Your task to perform on an android device: open app "Google Find My Device" (install if not already installed) Image 0: 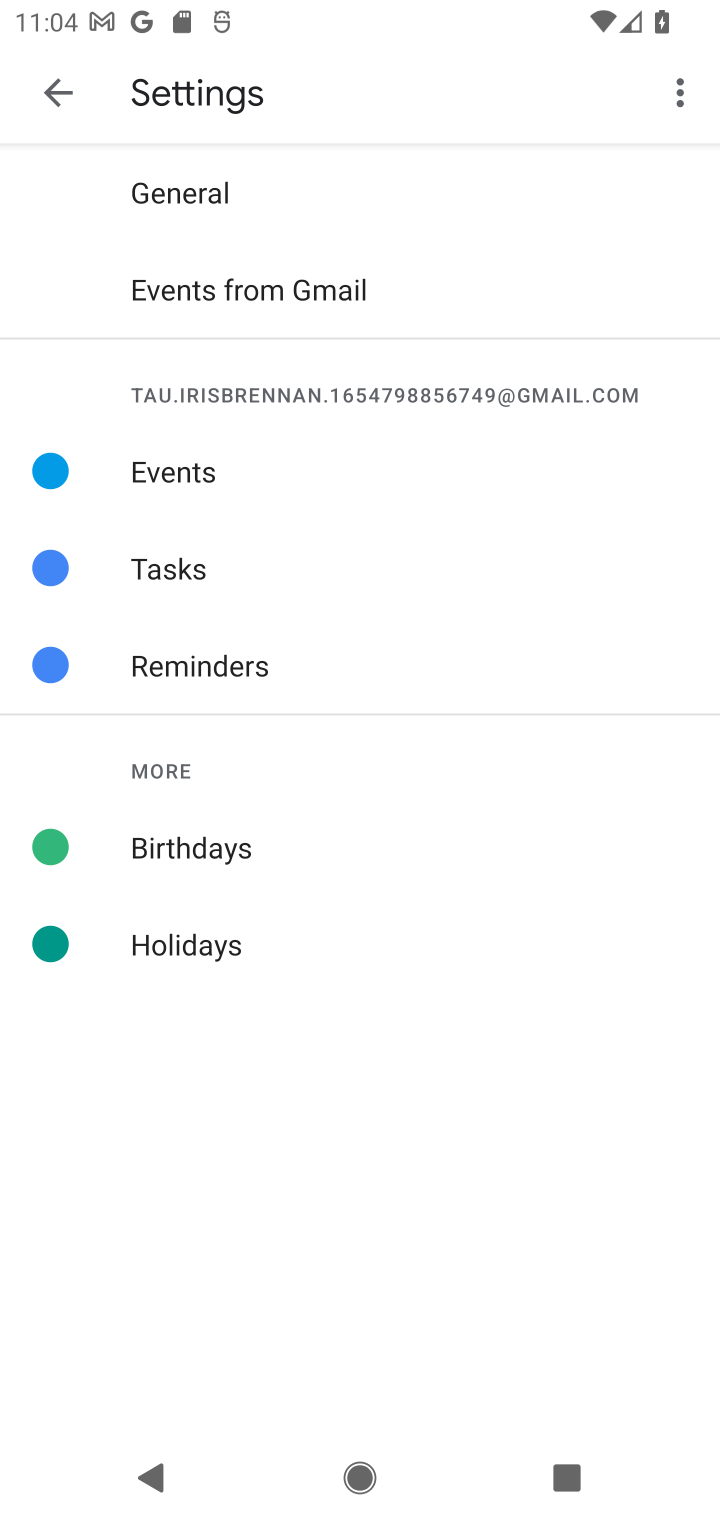
Step 0: press home button
Your task to perform on an android device: open app "Google Find My Device" (install if not already installed) Image 1: 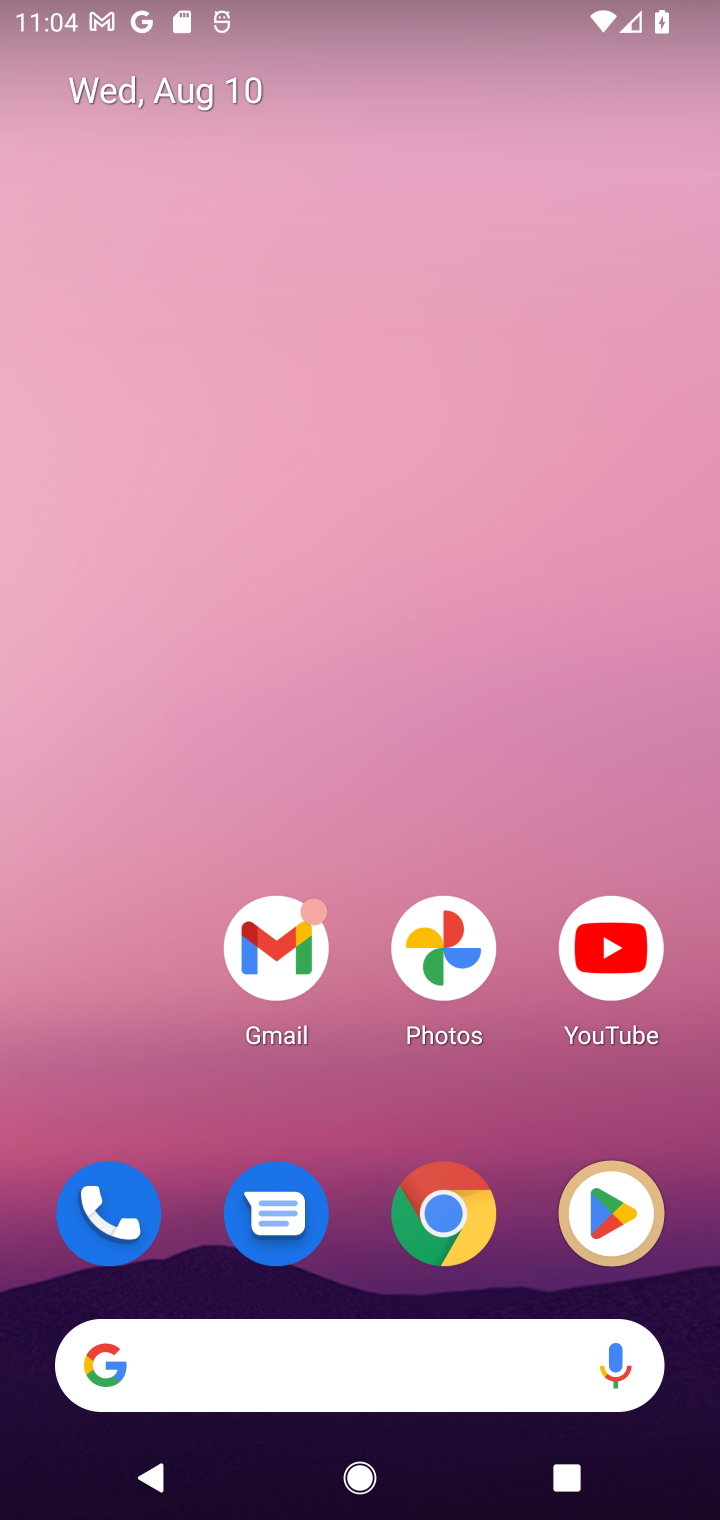
Step 1: drag from (277, 1358) to (381, 269)
Your task to perform on an android device: open app "Google Find My Device" (install if not already installed) Image 2: 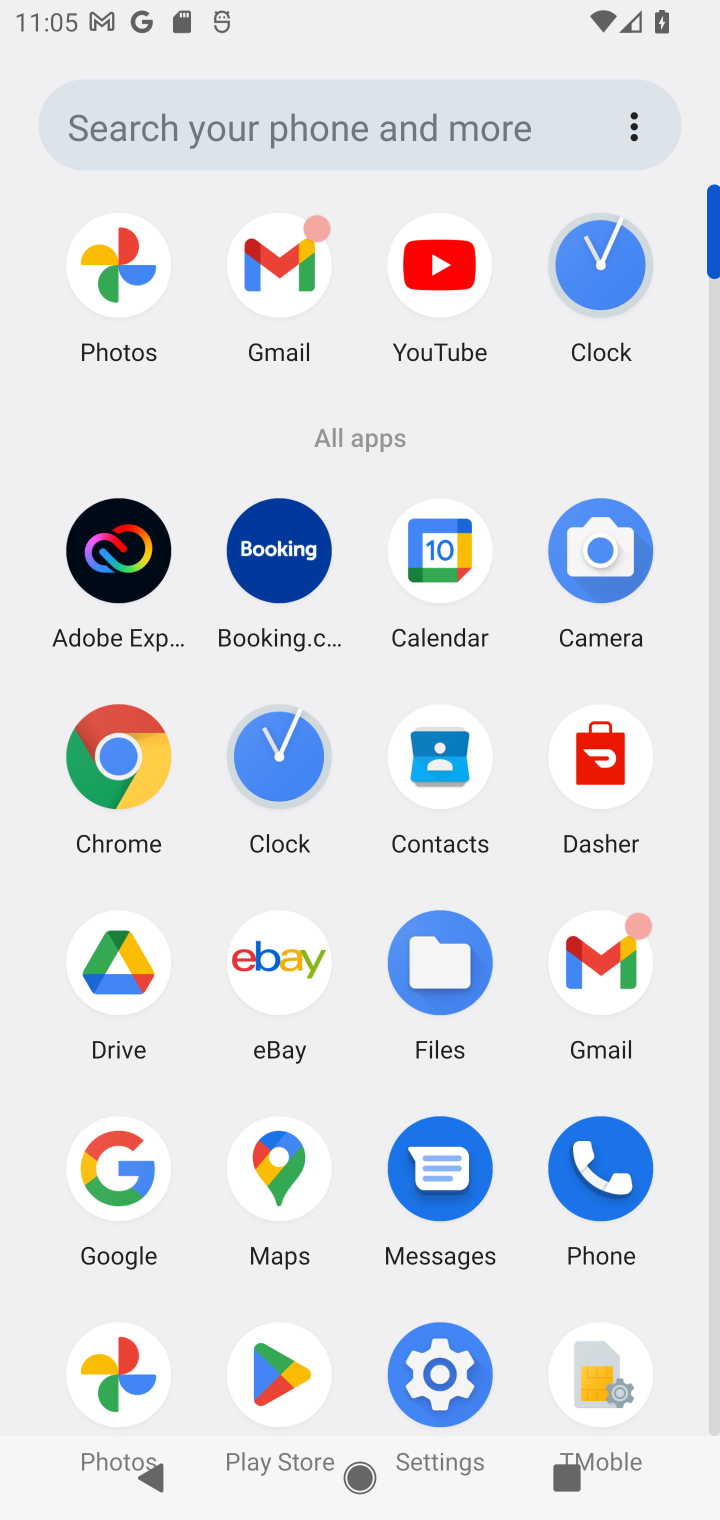
Step 2: click (275, 1385)
Your task to perform on an android device: open app "Google Find My Device" (install if not already installed) Image 3: 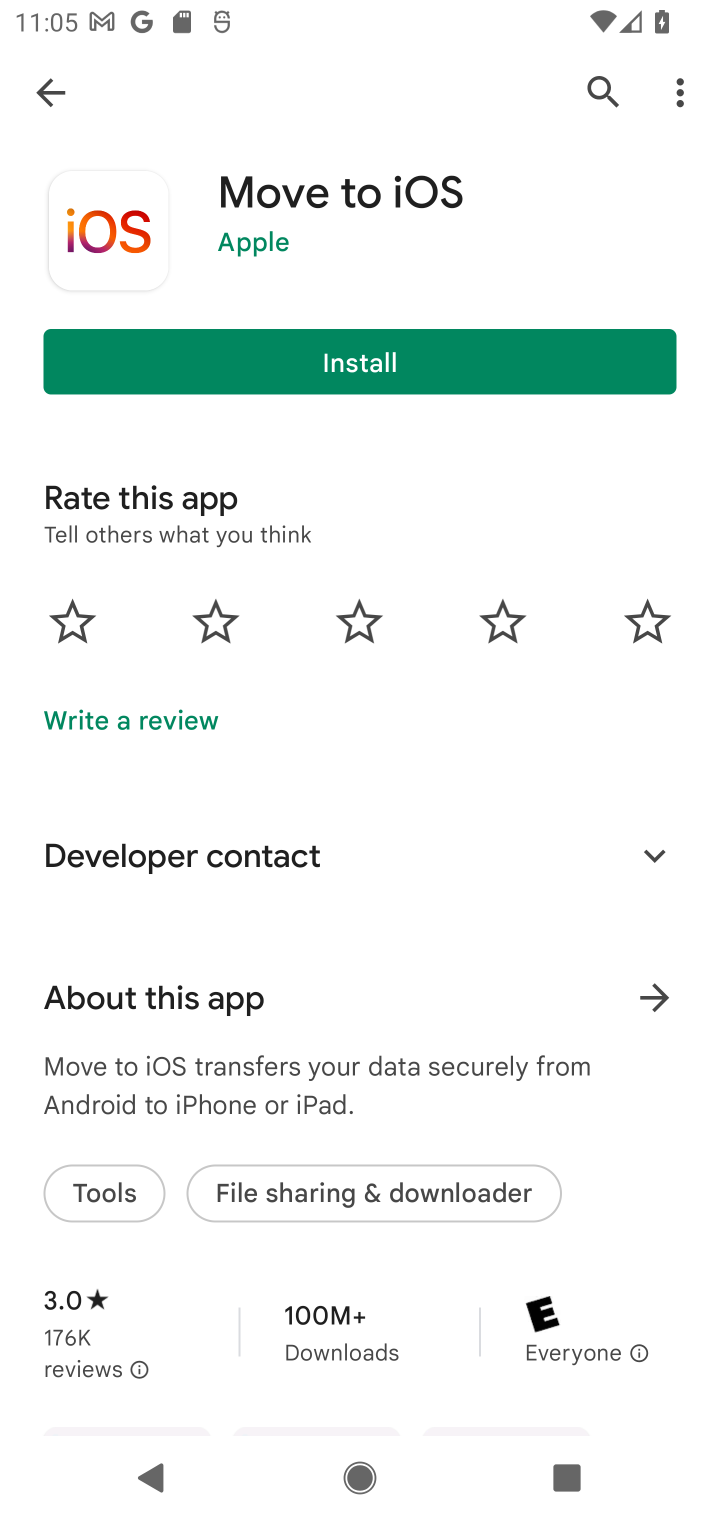
Step 3: press back button
Your task to perform on an android device: open app "Google Find My Device" (install if not already installed) Image 4: 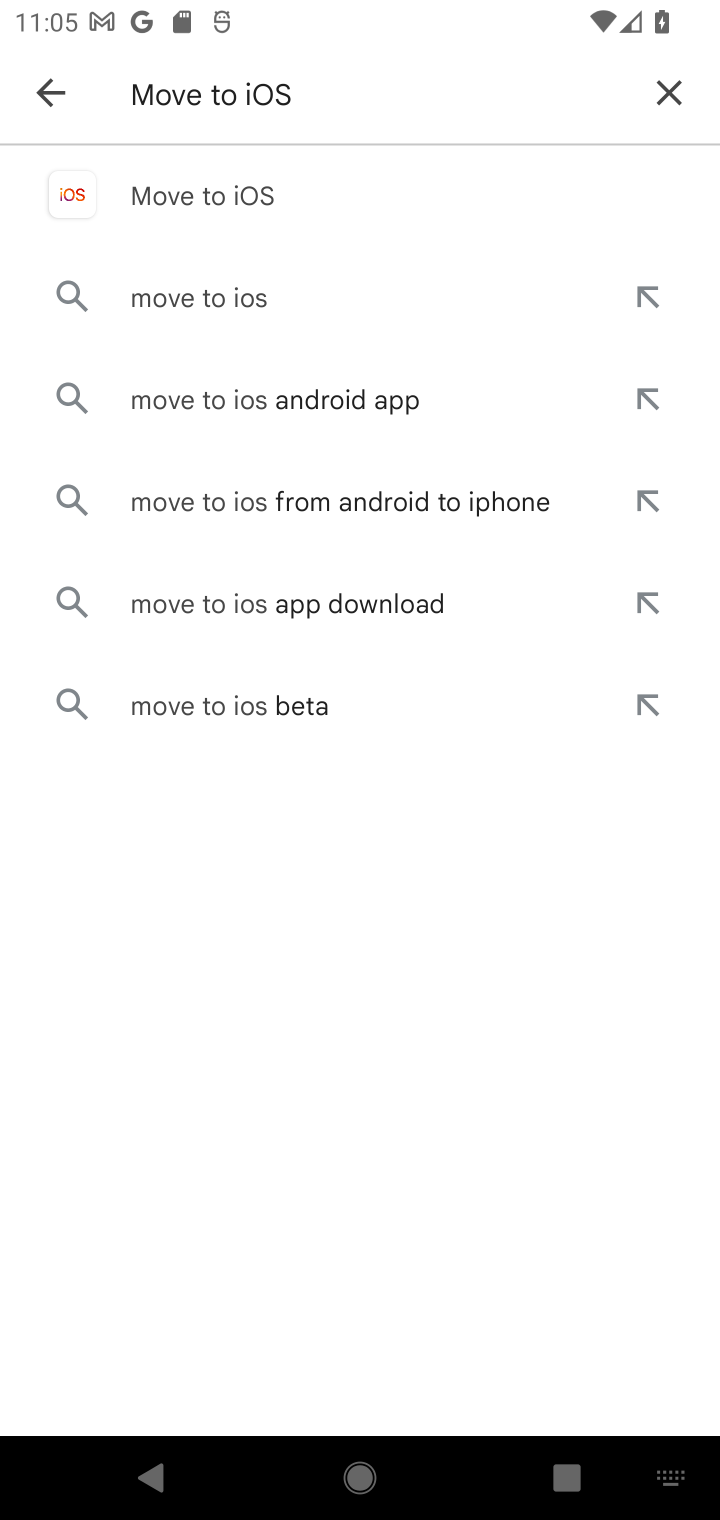
Step 4: press back button
Your task to perform on an android device: open app "Google Find My Device" (install if not already installed) Image 5: 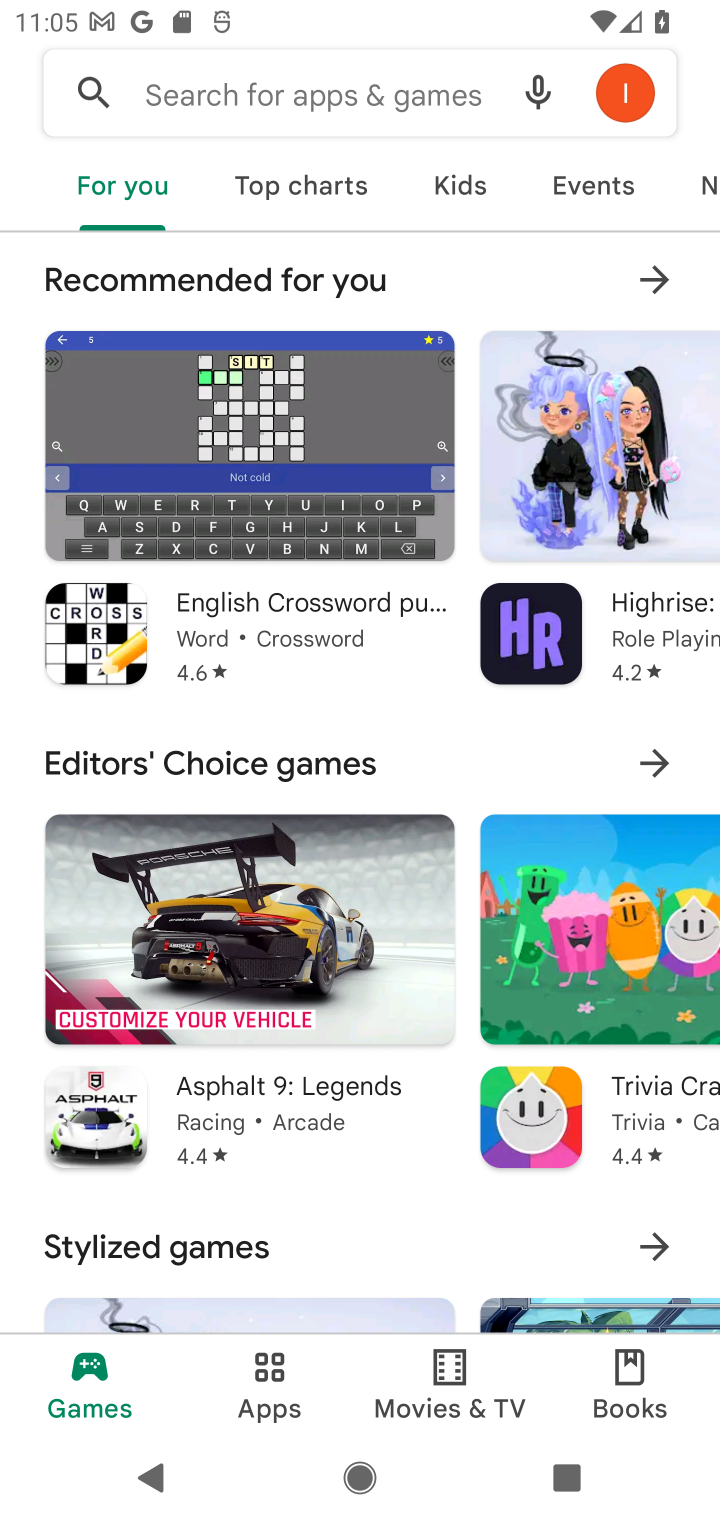
Step 5: click (292, 66)
Your task to perform on an android device: open app "Google Find My Device" (install if not already installed) Image 6: 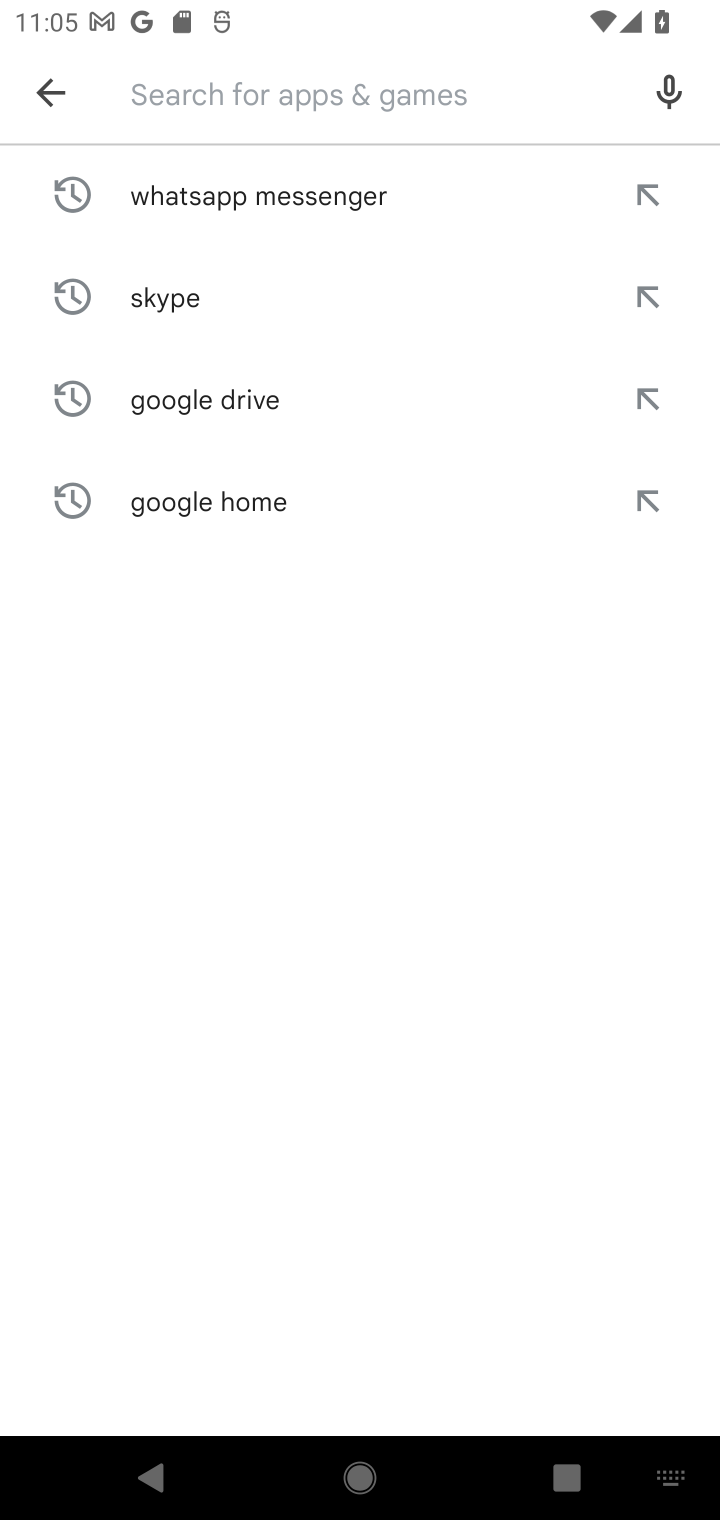
Step 6: click (253, 83)
Your task to perform on an android device: open app "Google Find My Device" (install if not already installed) Image 7: 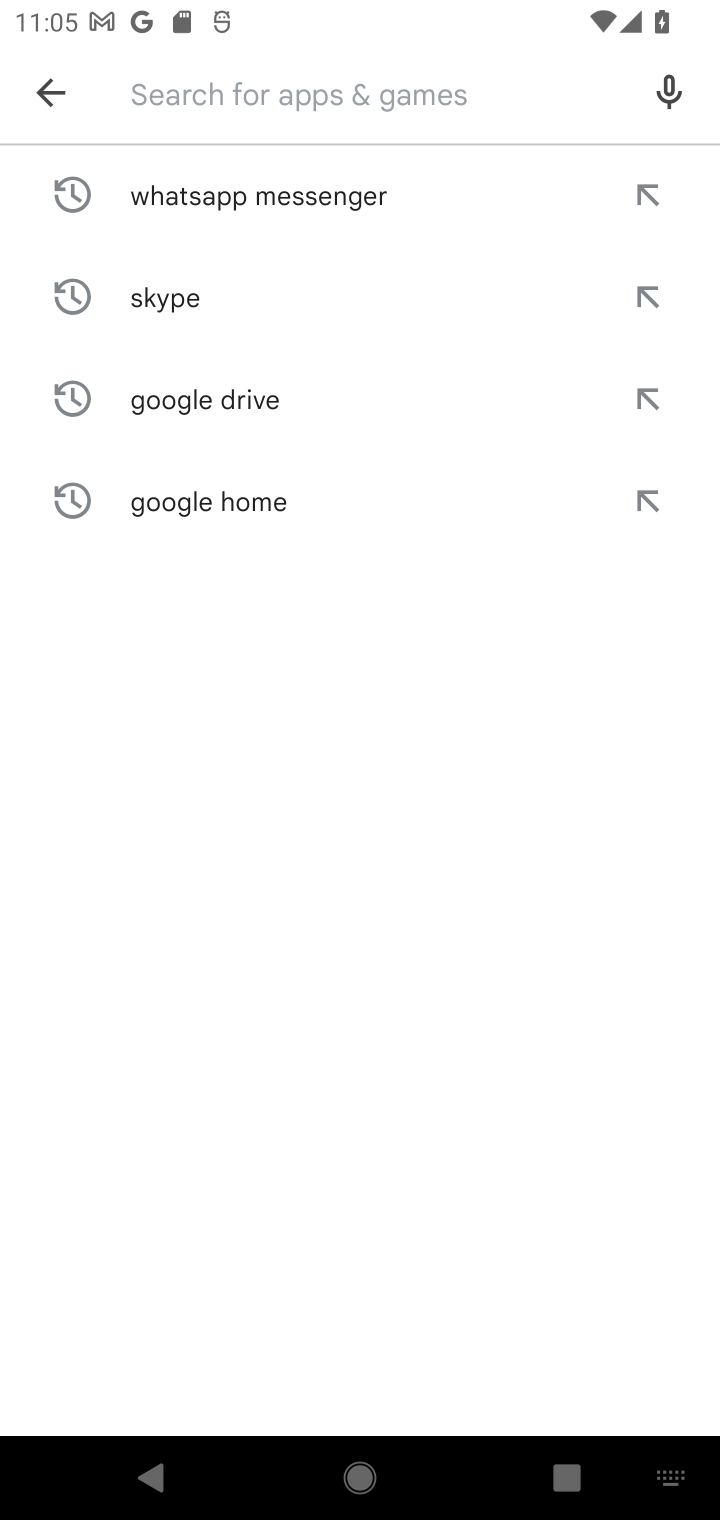
Step 7: type "Google Find My Device"
Your task to perform on an android device: open app "Google Find My Device" (install if not already installed) Image 8: 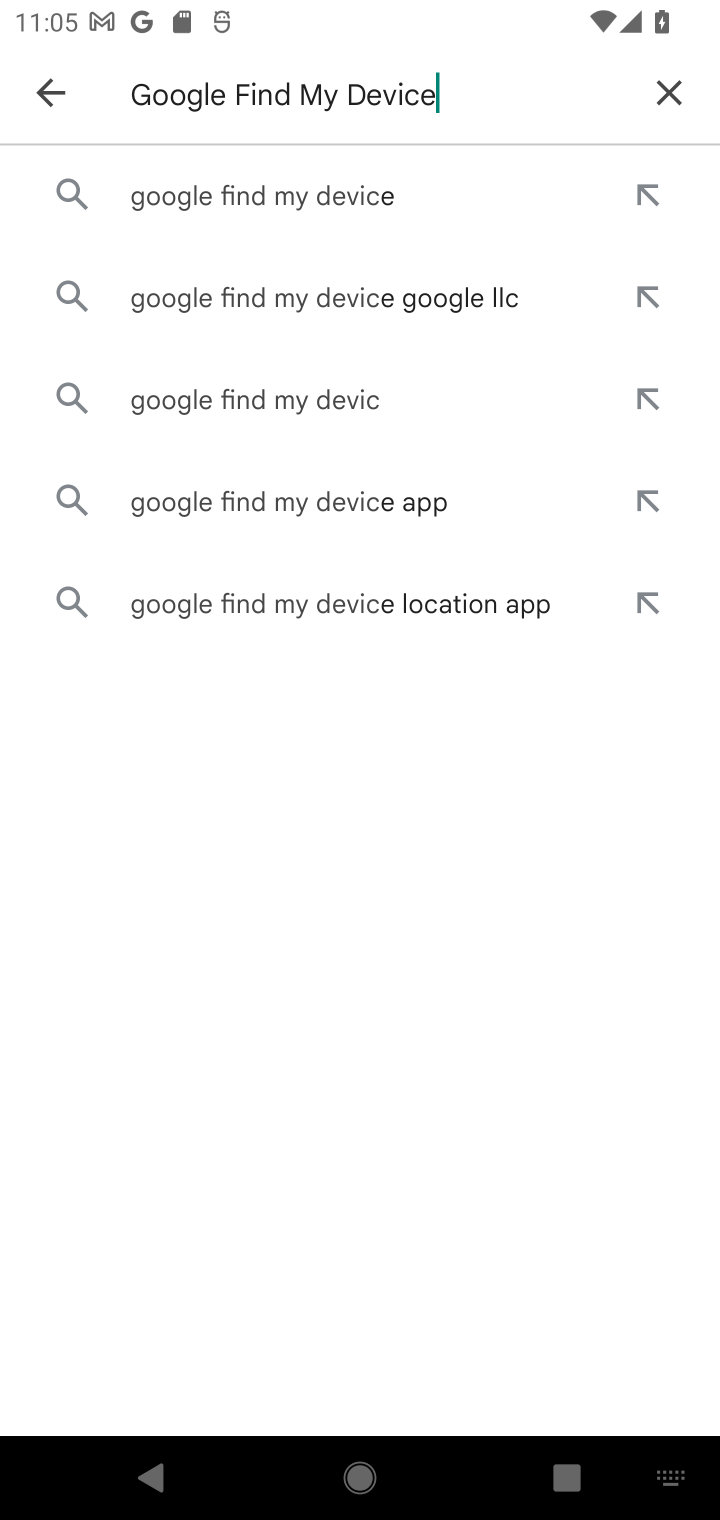
Step 8: type ""
Your task to perform on an android device: open app "Google Find My Device" (install if not already installed) Image 9: 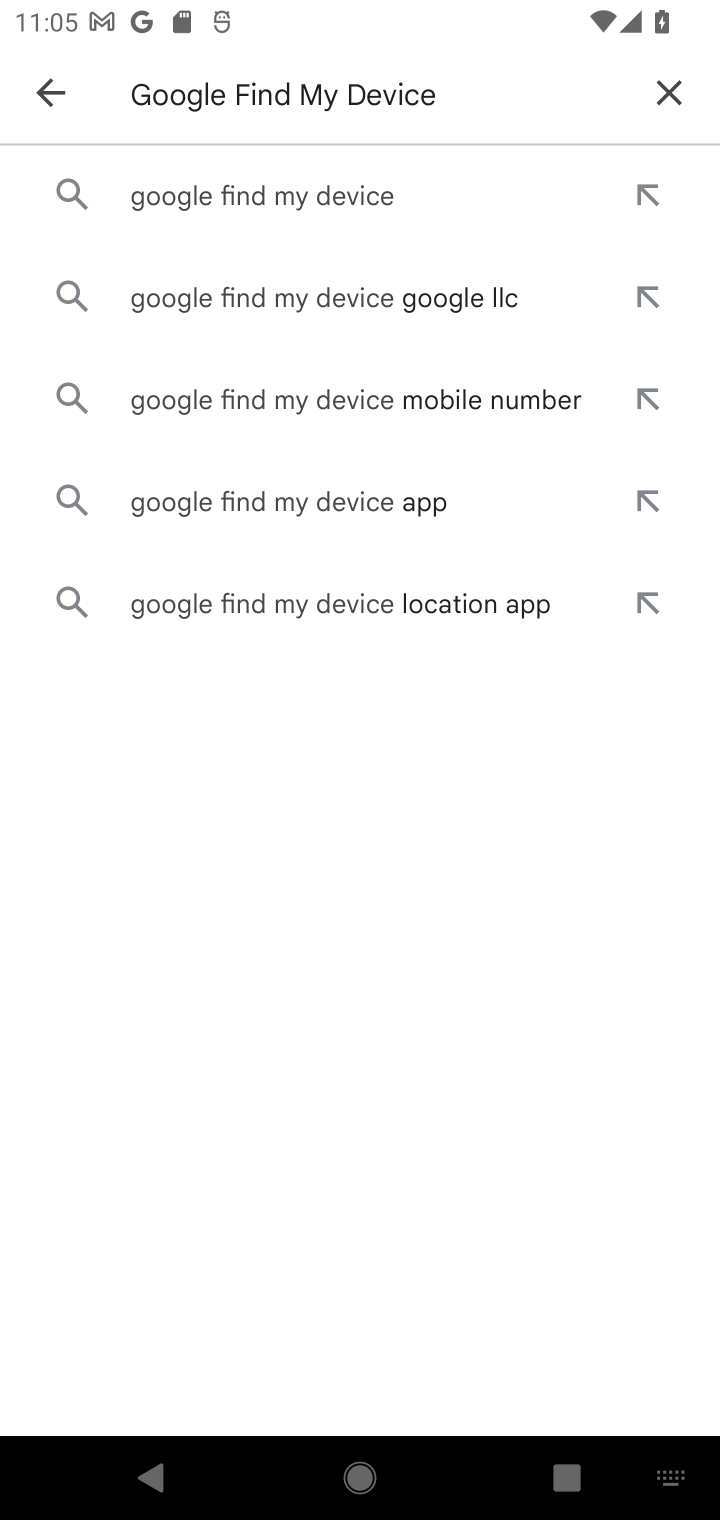
Step 9: click (328, 205)
Your task to perform on an android device: open app "Google Find My Device" (install if not already installed) Image 10: 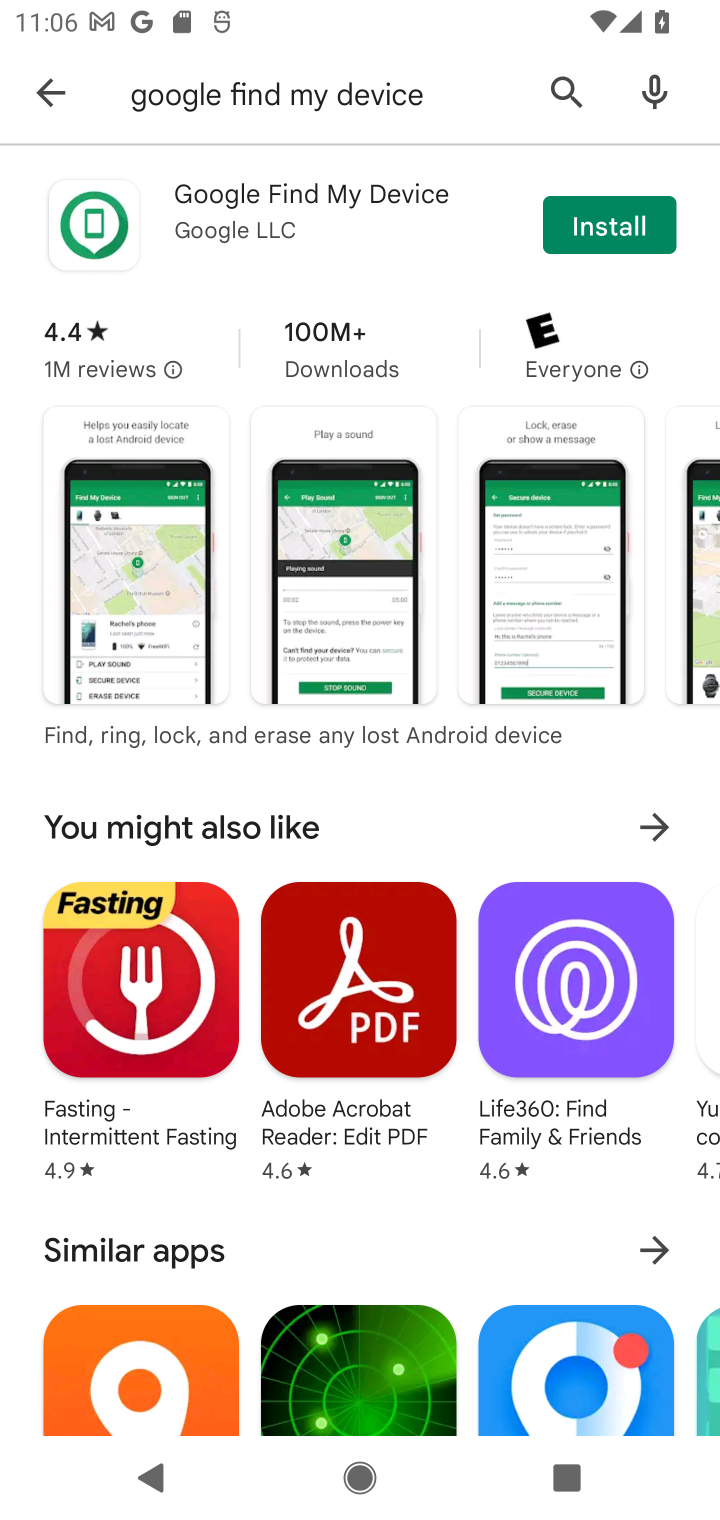
Step 10: click (607, 223)
Your task to perform on an android device: open app "Google Find My Device" (install if not already installed) Image 11: 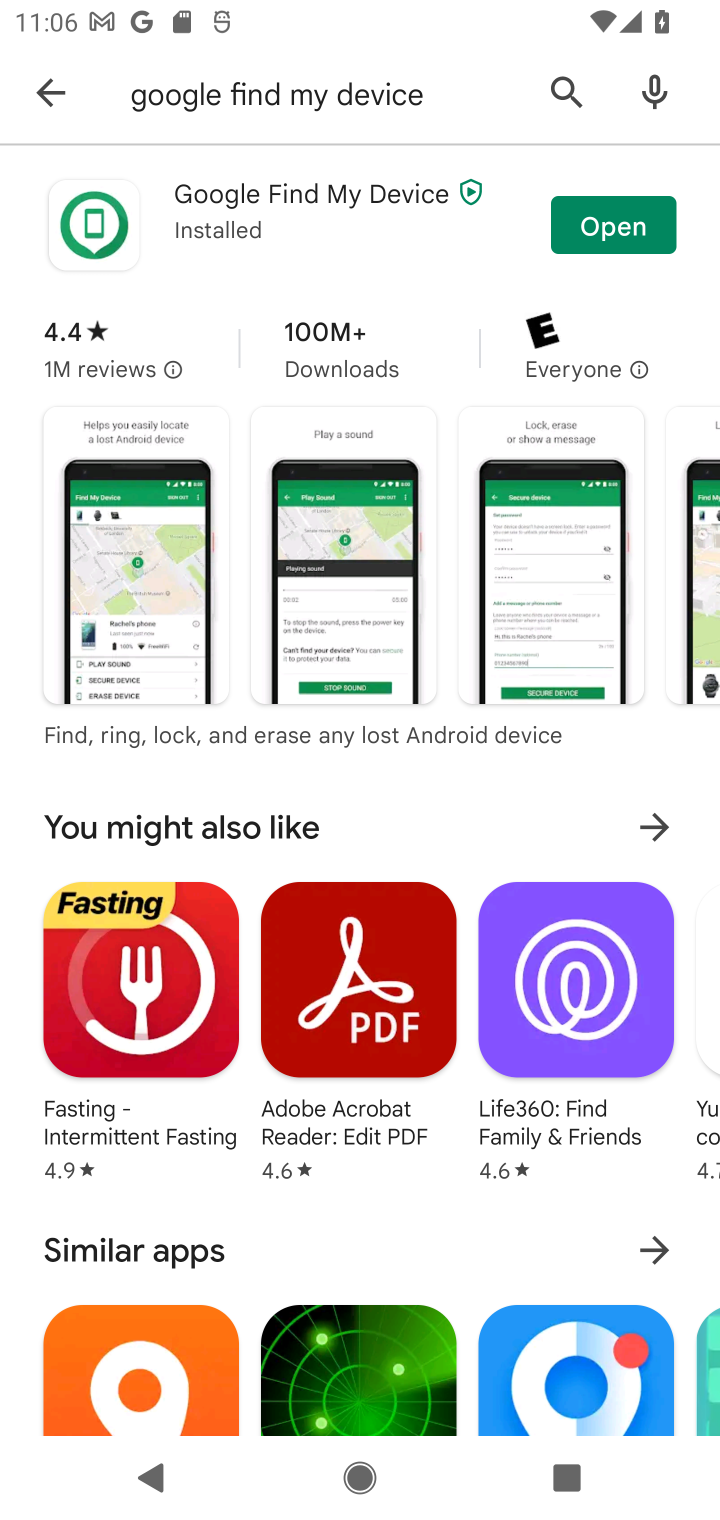
Step 11: click (625, 231)
Your task to perform on an android device: open app "Google Find My Device" (install if not already installed) Image 12: 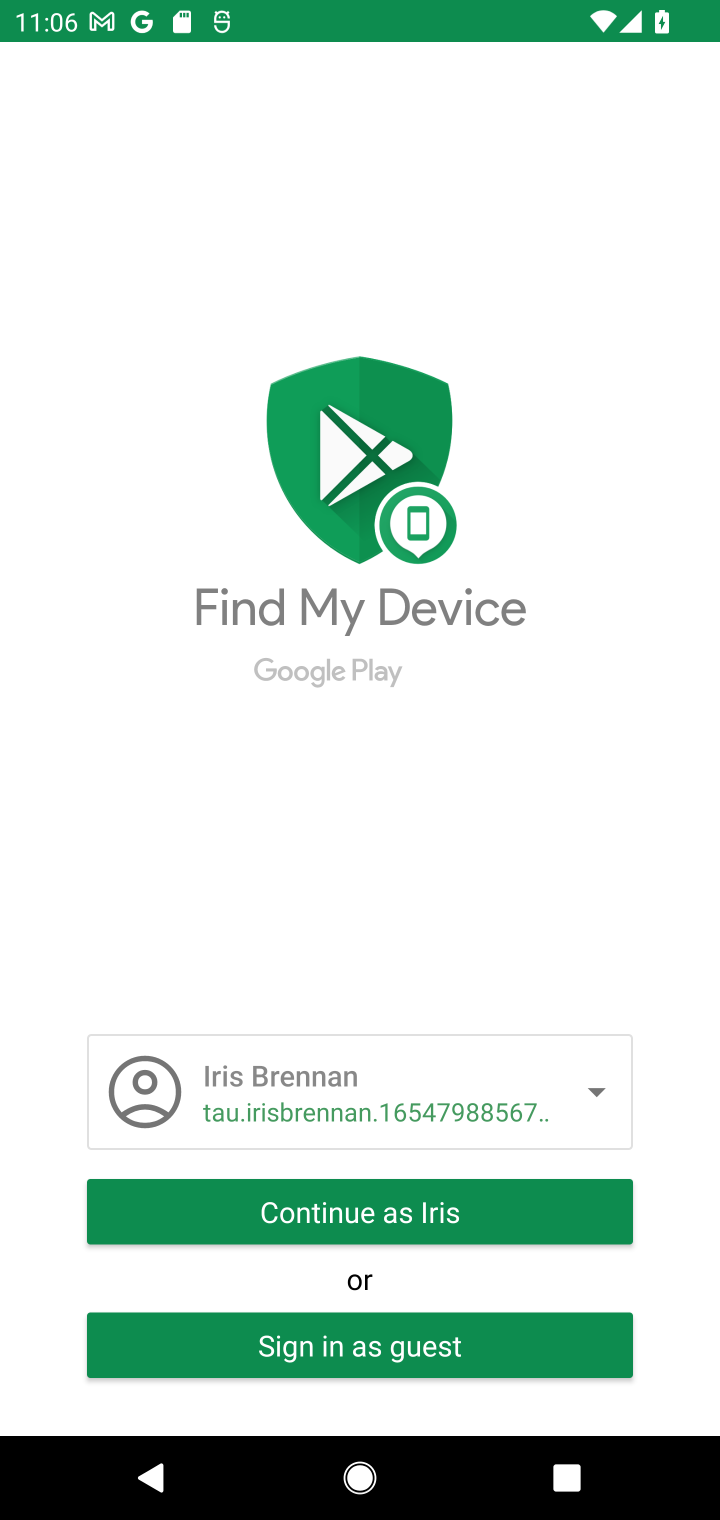
Step 12: task complete